Your task to perform on an android device: turn on airplane mode Image 0: 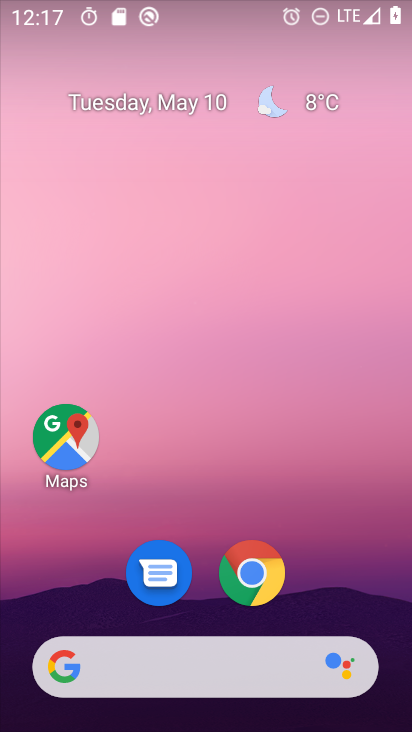
Step 0: drag from (341, 595) to (329, 211)
Your task to perform on an android device: turn on airplane mode Image 1: 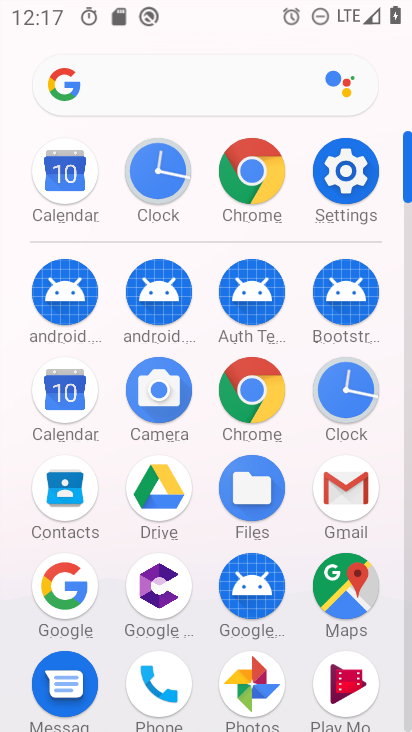
Step 1: click (357, 160)
Your task to perform on an android device: turn on airplane mode Image 2: 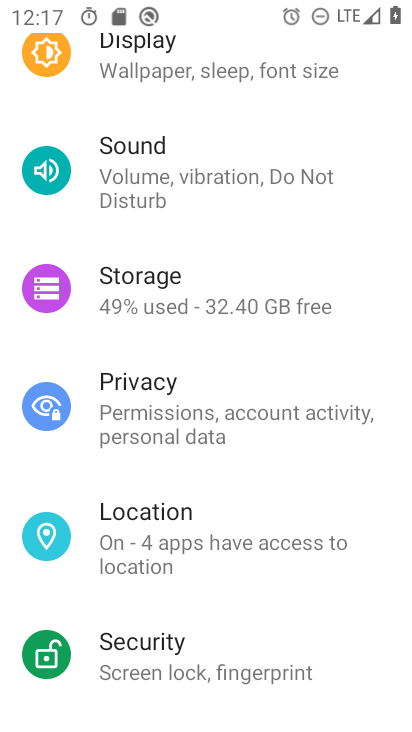
Step 2: drag from (278, 189) to (246, 582)
Your task to perform on an android device: turn on airplane mode Image 3: 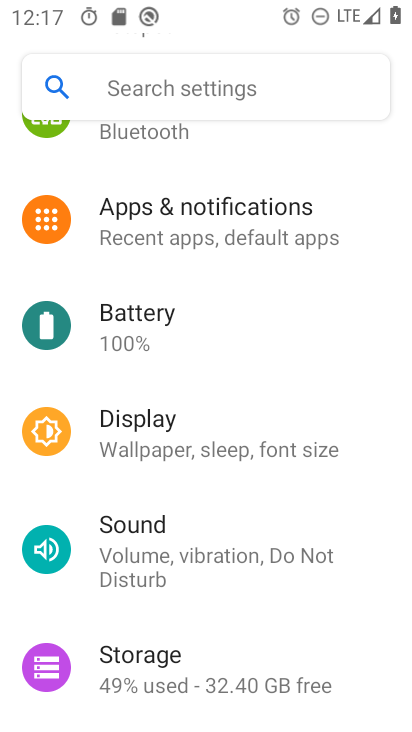
Step 3: drag from (319, 241) to (253, 576)
Your task to perform on an android device: turn on airplane mode Image 4: 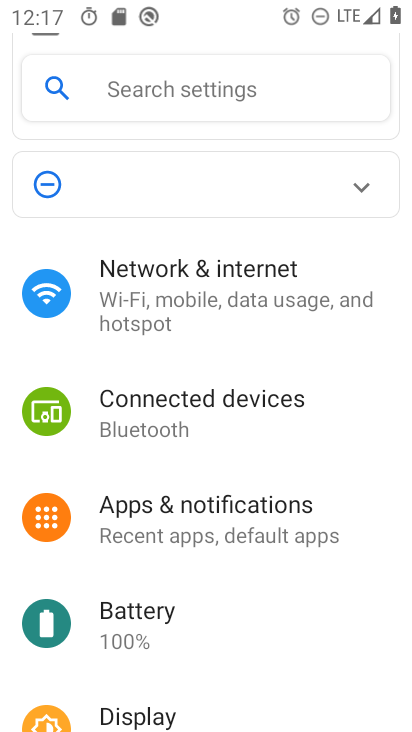
Step 4: click (274, 266)
Your task to perform on an android device: turn on airplane mode Image 5: 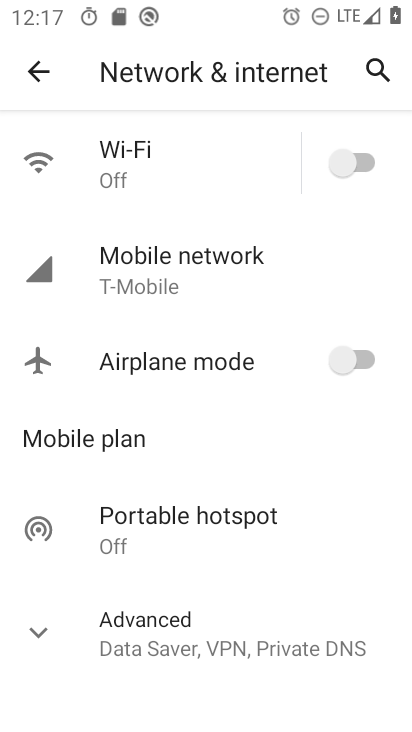
Step 5: click (342, 362)
Your task to perform on an android device: turn on airplane mode Image 6: 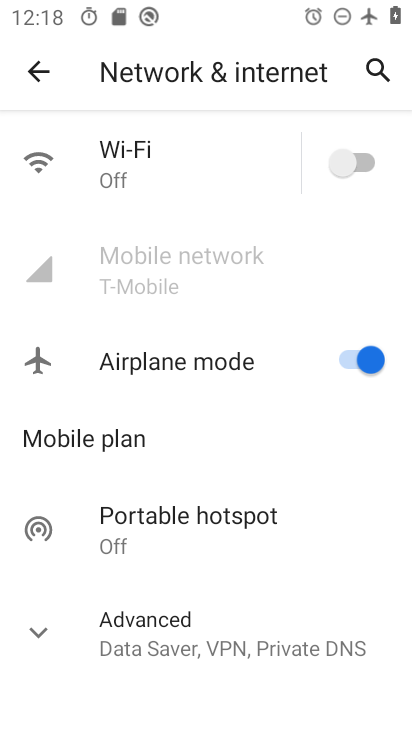
Step 6: task complete